Your task to perform on an android device: Open calendar and show me the third week of next month Image 0: 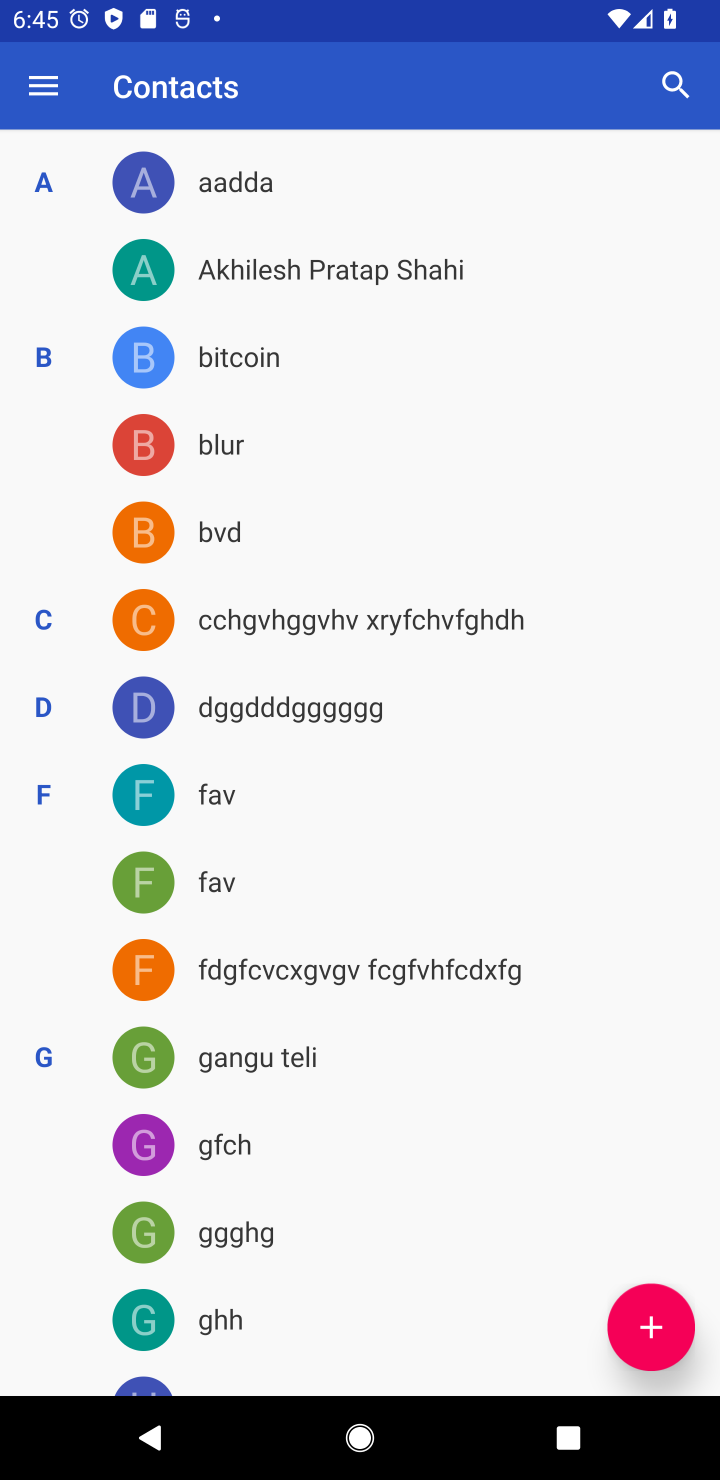
Step 0: press home button
Your task to perform on an android device: Open calendar and show me the third week of next month Image 1: 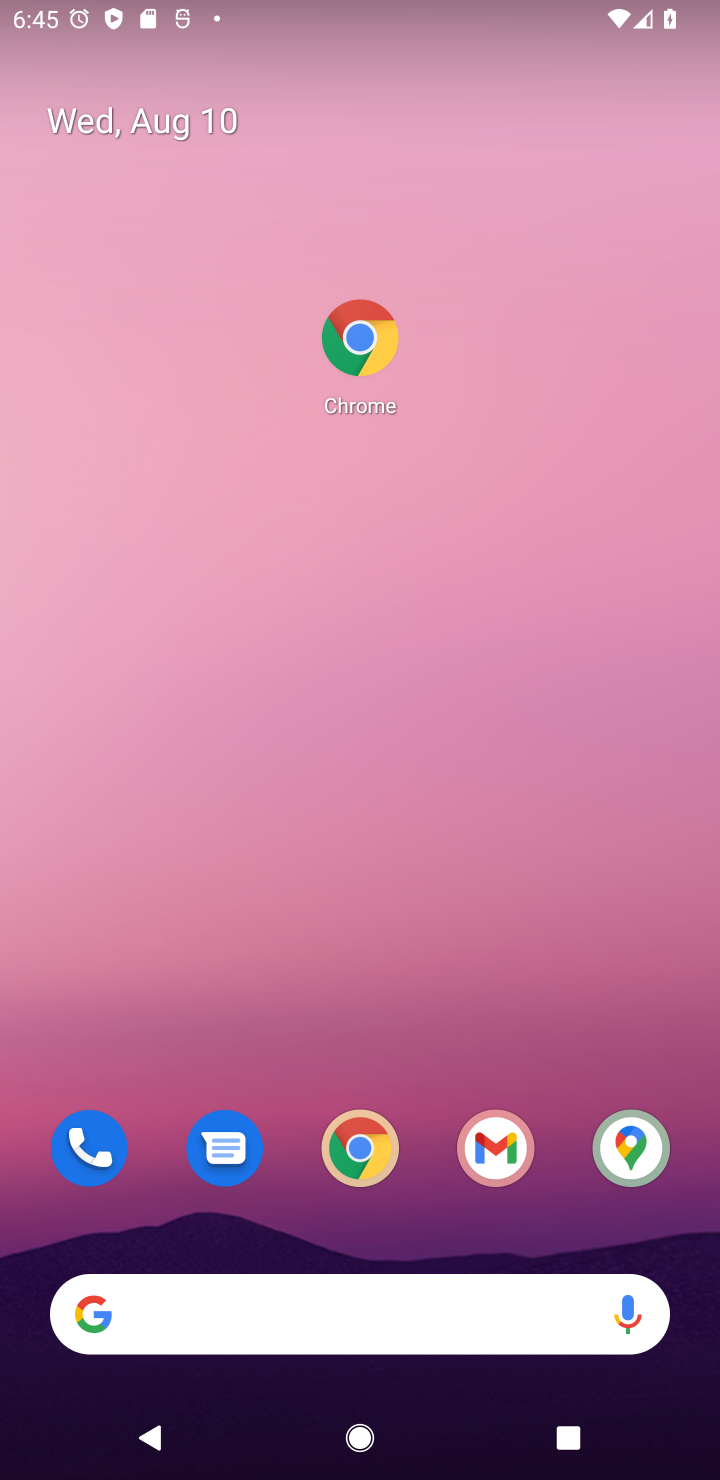
Step 1: click (144, 120)
Your task to perform on an android device: Open calendar and show me the third week of next month Image 2: 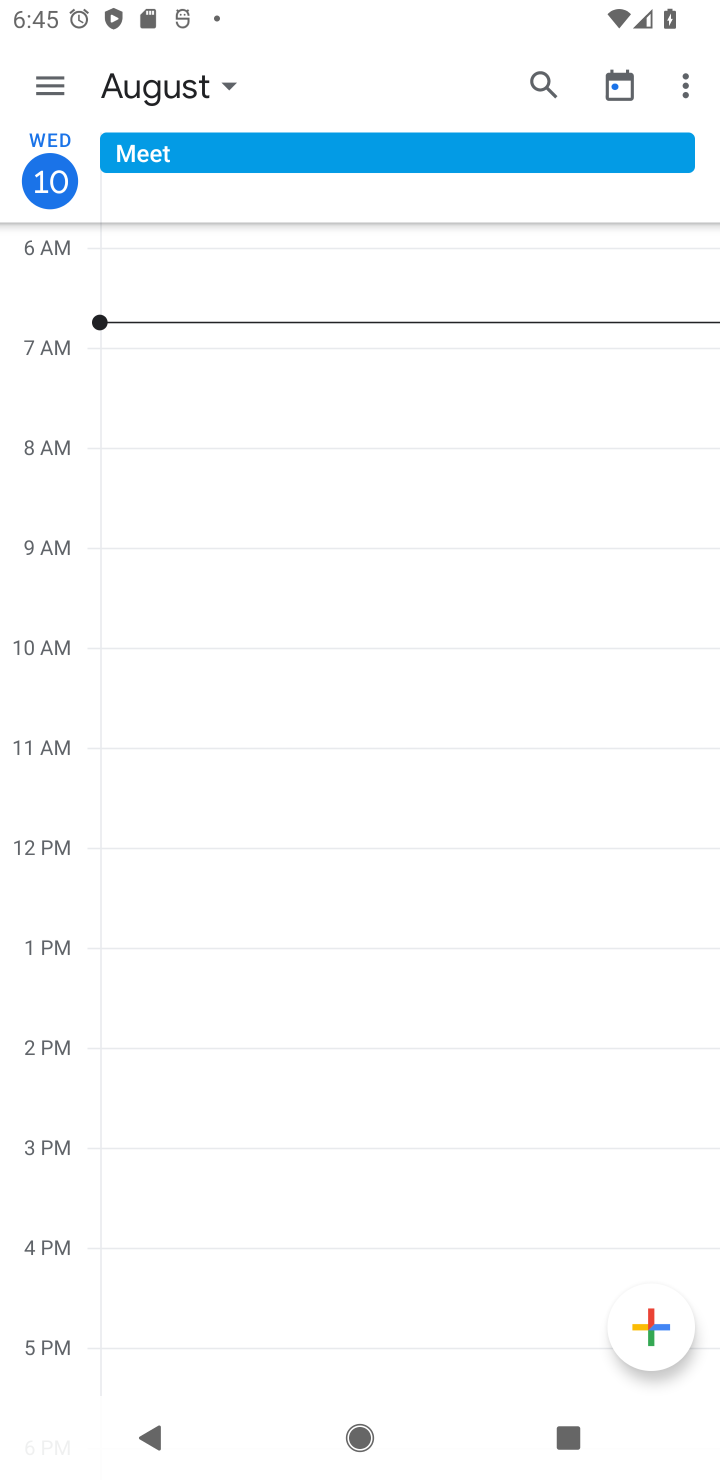
Step 2: click (37, 77)
Your task to perform on an android device: Open calendar and show me the third week of next month Image 3: 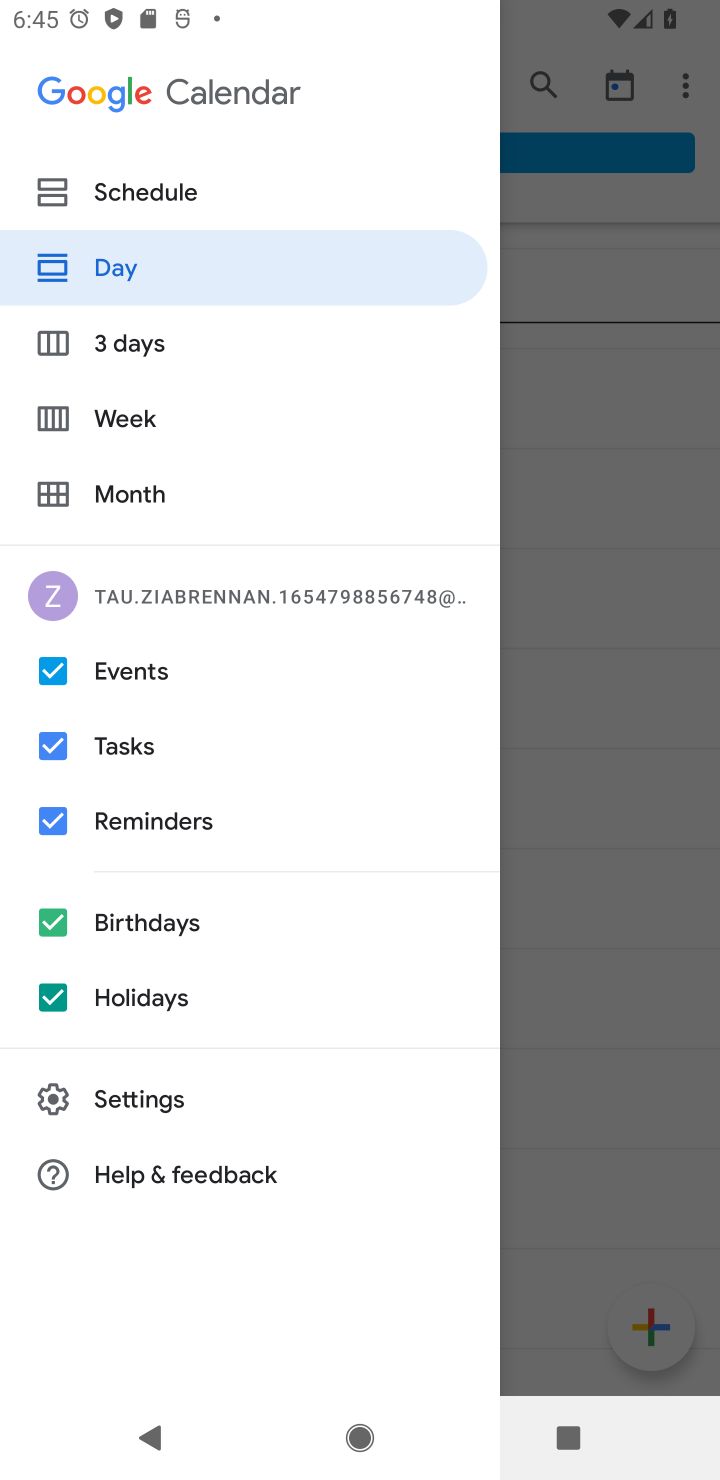
Step 3: click (88, 502)
Your task to perform on an android device: Open calendar and show me the third week of next month Image 4: 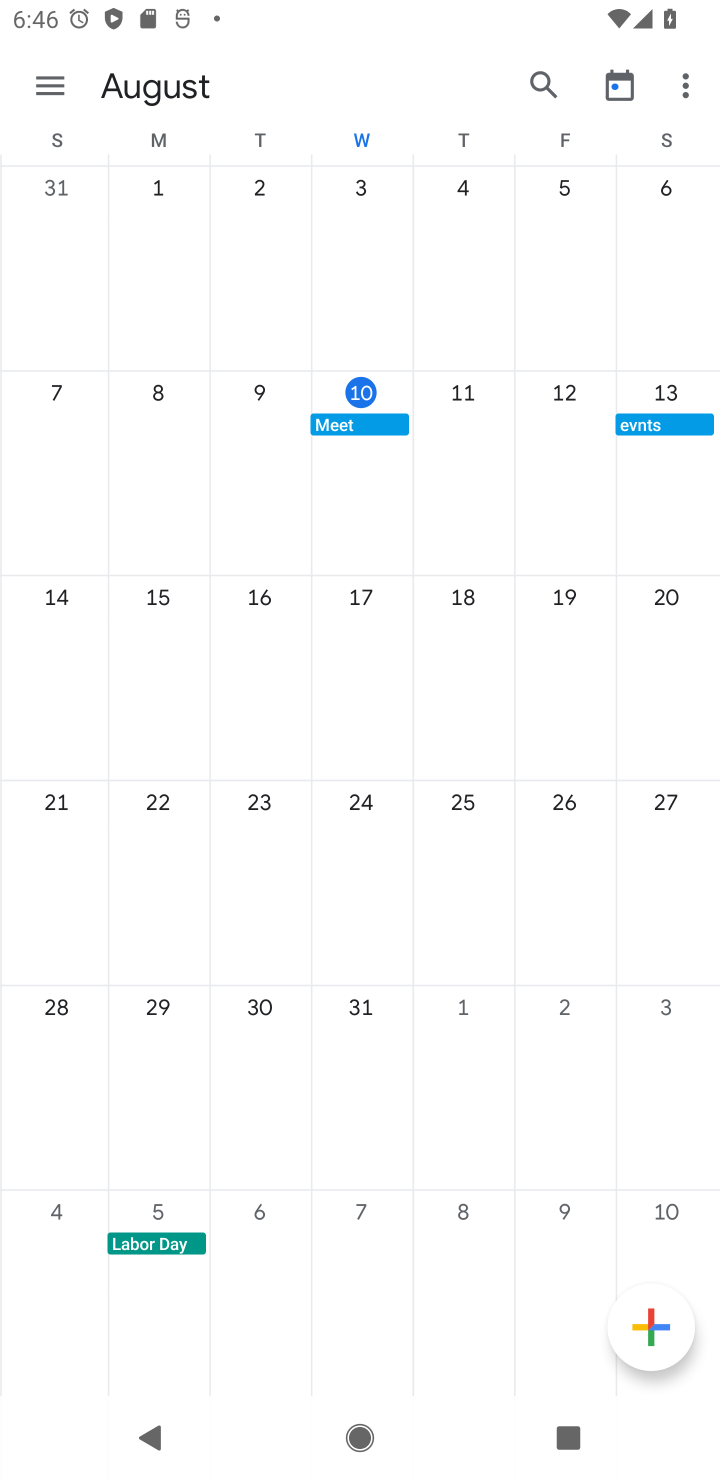
Step 4: task complete